Your task to perform on an android device: Is it going to rain today? Image 0: 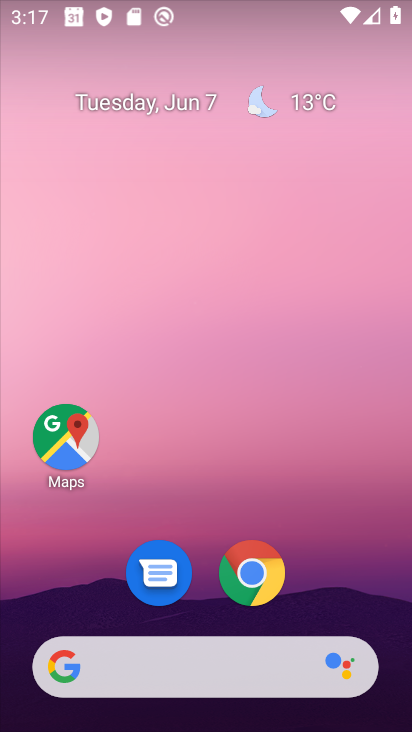
Step 0: click (228, 669)
Your task to perform on an android device: Is it going to rain today? Image 1: 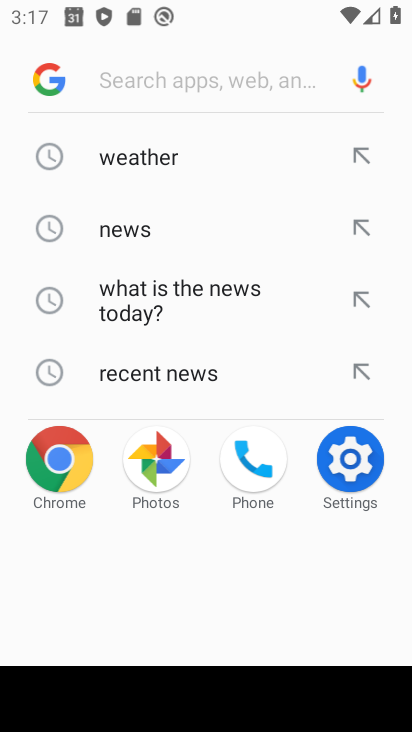
Step 1: click (218, 89)
Your task to perform on an android device: Is it going to rain today? Image 2: 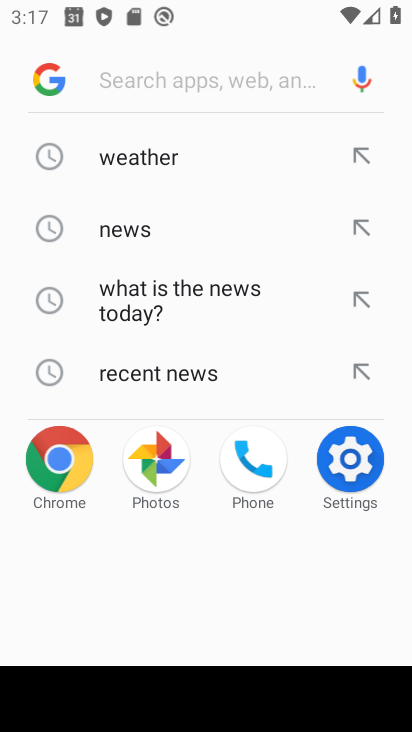
Step 2: type "Is it going to rain today?"
Your task to perform on an android device: Is it going to rain today? Image 3: 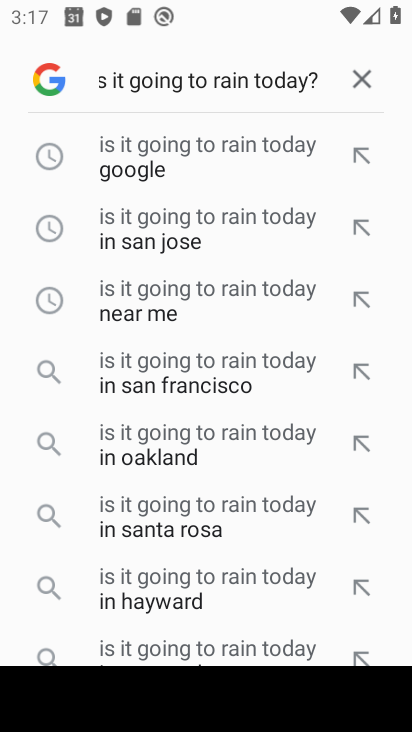
Step 3: click (288, 148)
Your task to perform on an android device: Is it going to rain today? Image 4: 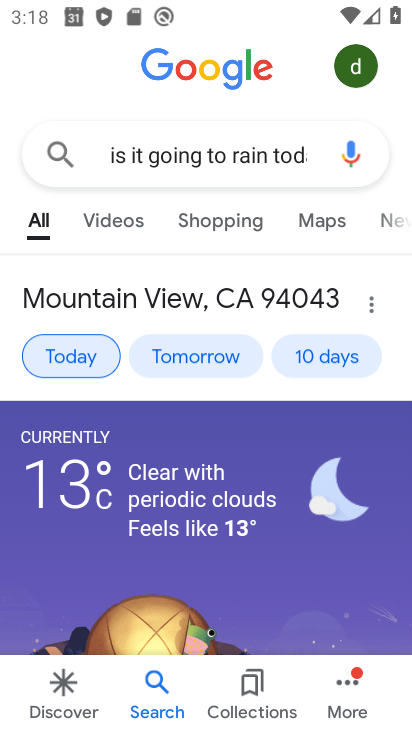
Step 4: task complete